Your task to perform on an android device: open app "Instagram" Image 0: 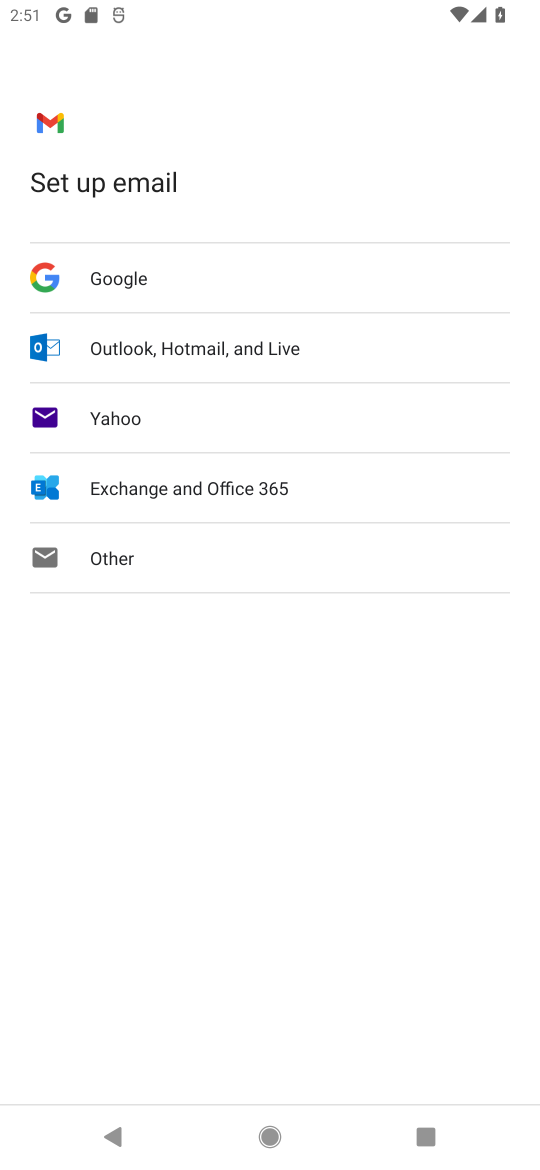
Step 0: press home button
Your task to perform on an android device: open app "Instagram" Image 1: 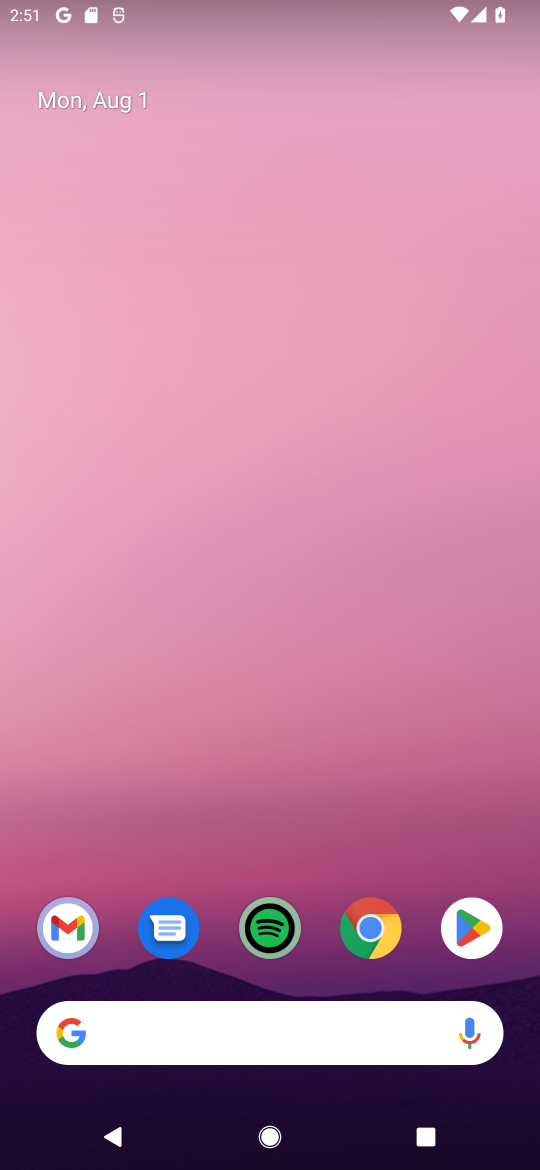
Step 1: click (472, 928)
Your task to perform on an android device: open app "Instagram" Image 2: 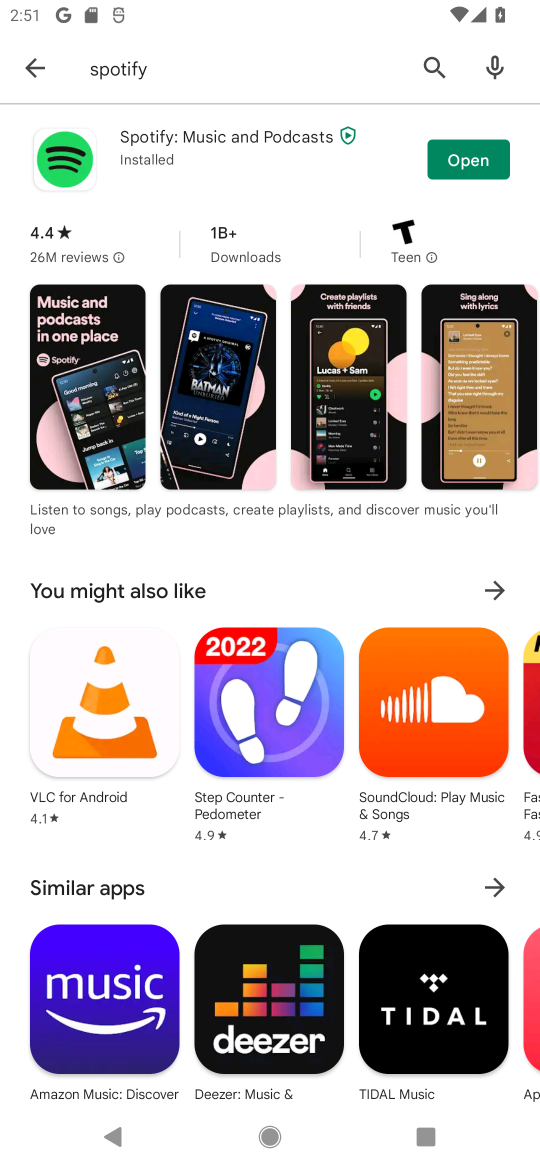
Step 2: click (425, 70)
Your task to perform on an android device: open app "Instagram" Image 3: 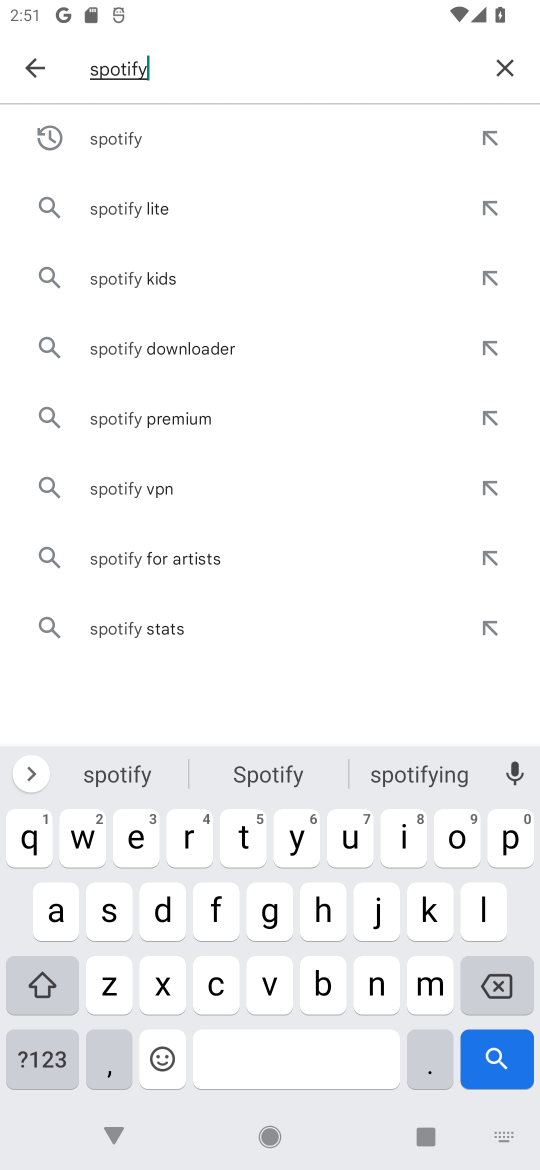
Step 3: click (493, 57)
Your task to perform on an android device: open app "Instagram" Image 4: 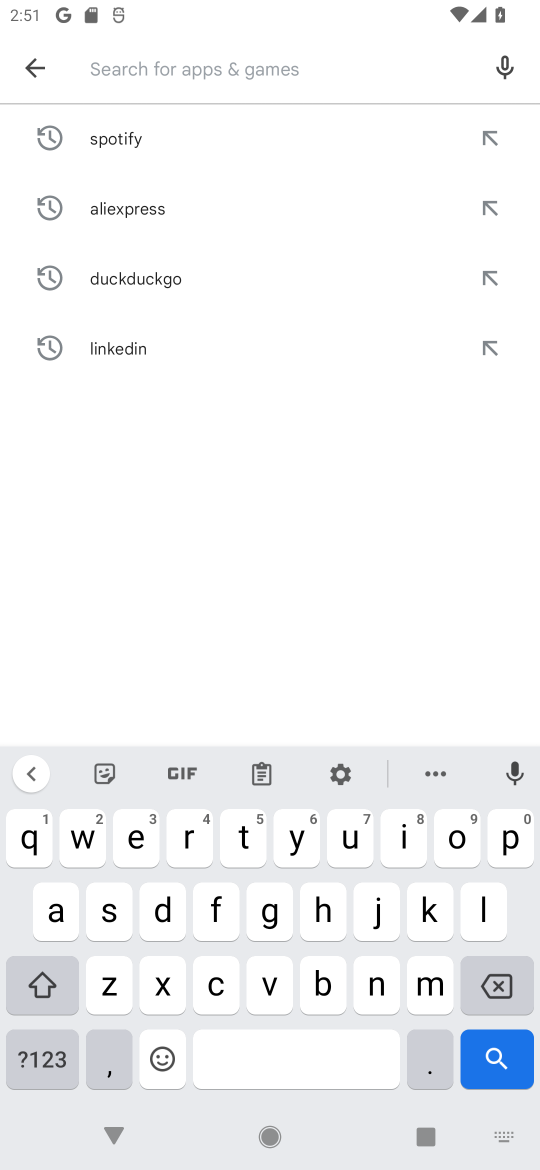
Step 4: click (399, 830)
Your task to perform on an android device: open app "Instagram" Image 5: 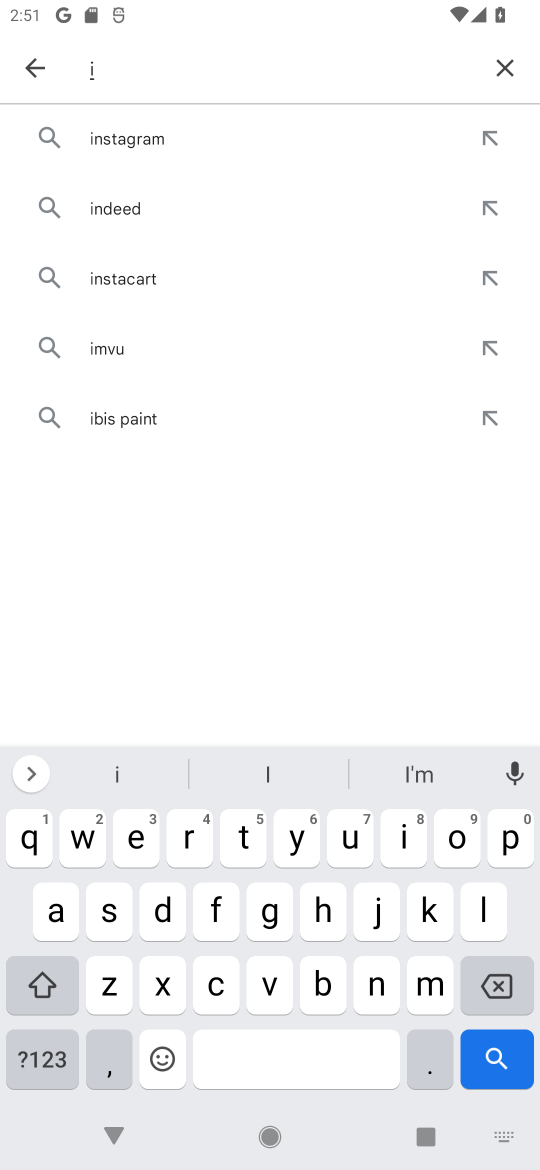
Step 5: click (374, 996)
Your task to perform on an android device: open app "Instagram" Image 6: 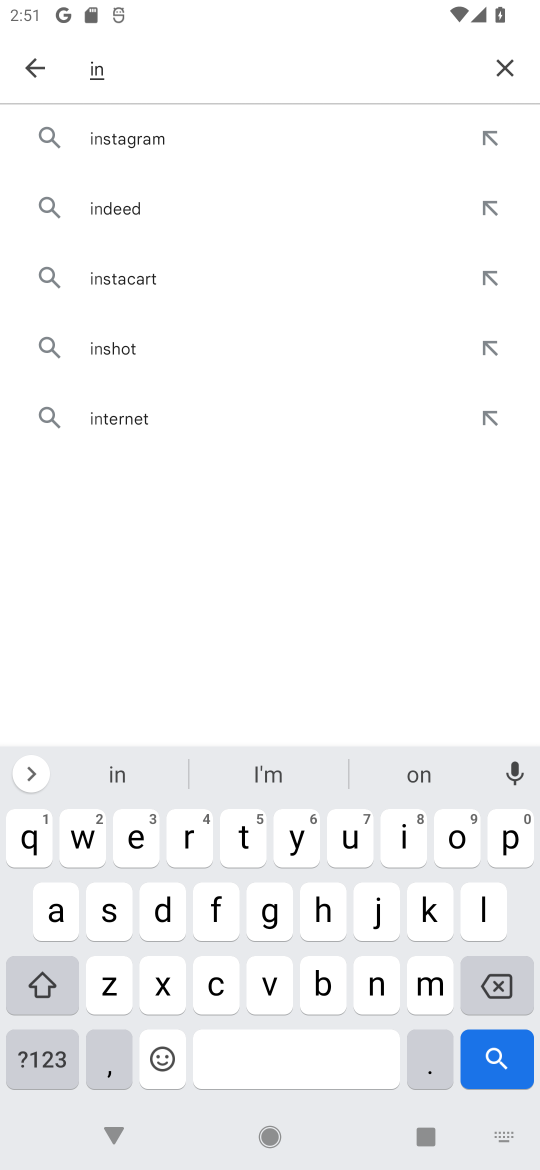
Step 6: click (203, 136)
Your task to perform on an android device: open app "Instagram" Image 7: 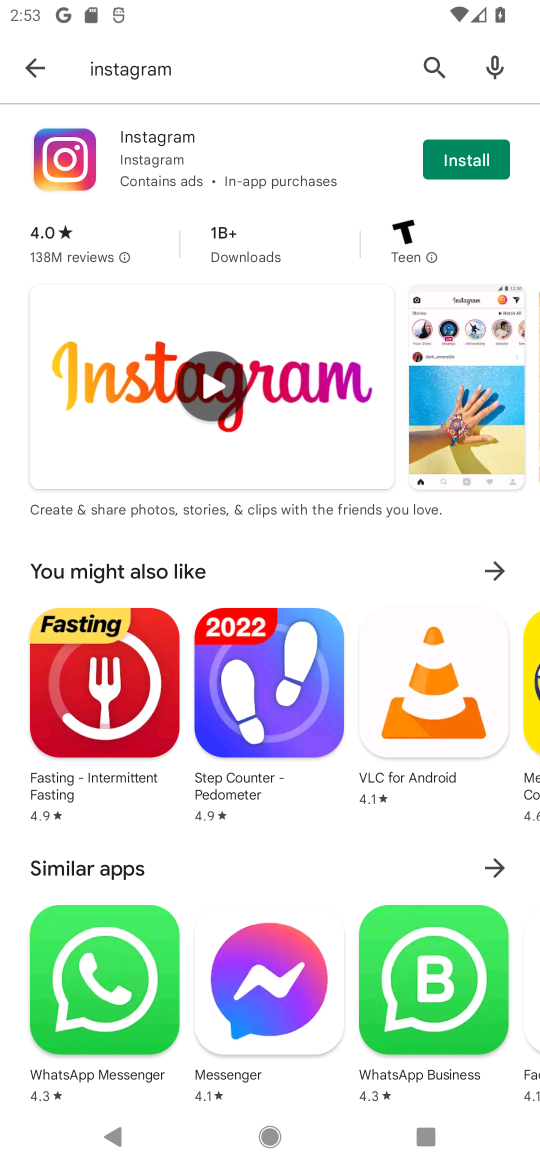
Step 7: task complete